Your task to perform on an android device: toggle sleep mode Image 0: 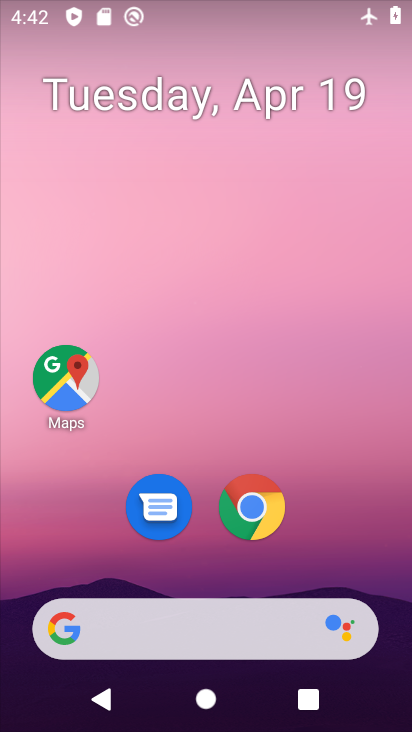
Step 0: drag from (330, 496) to (294, 120)
Your task to perform on an android device: toggle sleep mode Image 1: 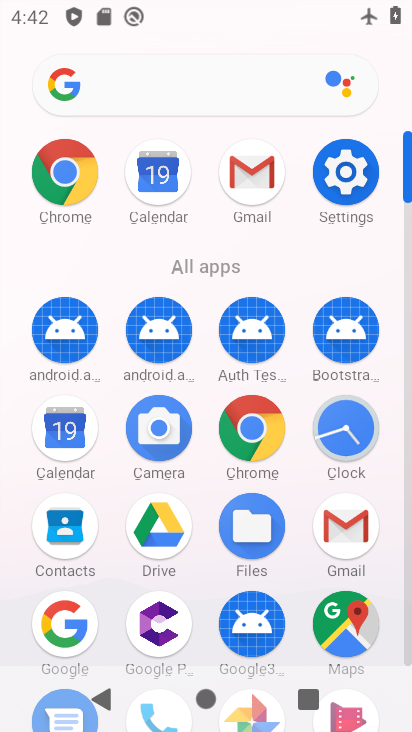
Step 1: click (339, 185)
Your task to perform on an android device: toggle sleep mode Image 2: 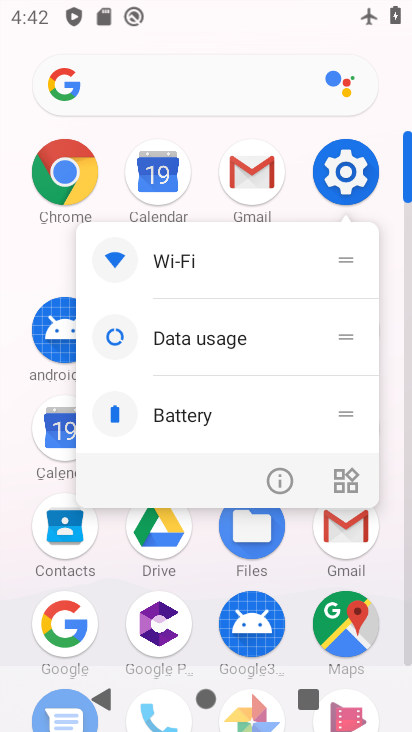
Step 2: click (342, 180)
Your task to perform on an android device: toggle sleep mode Image 3: 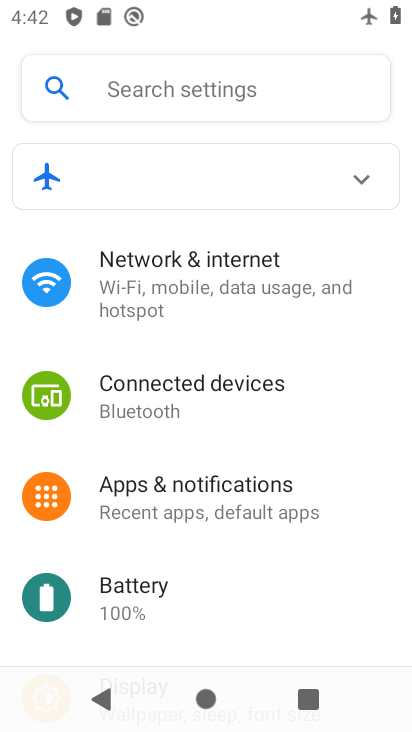
Step 3: drag from (227, 571) to (274, 161)
Your task to perform on an android device: toggle sleep mode Image 4: 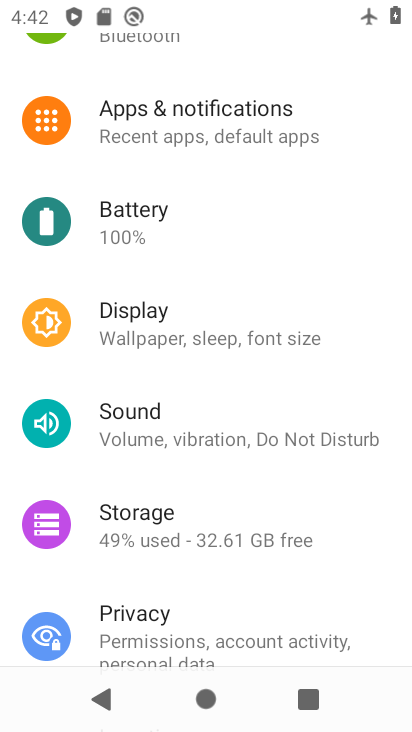
Step 4: click (164, 314)
Your task to perform on an android device: toggle sleep mode Image 5: 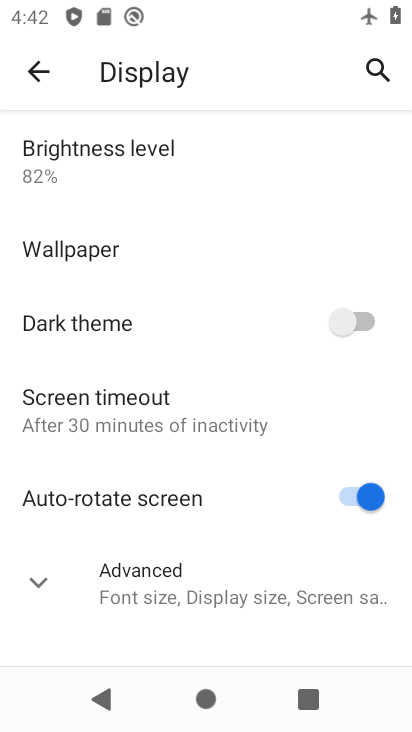
Step 5: click (218, 437)
Your task to perform on an android device: toggle sleep mode Image 6: 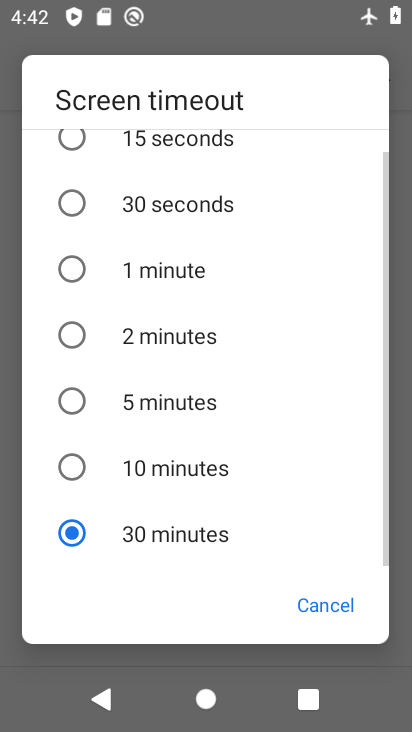
Step 6: drag from (202, 265) to (180, 581)
Your task to perform on an android device: toggle sleep mode Image 7: 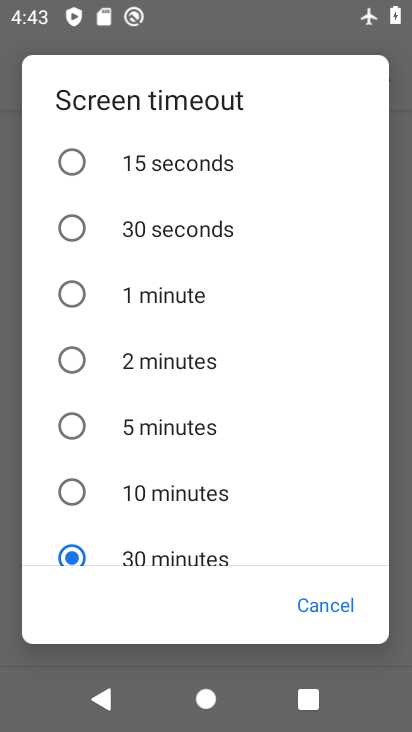
Step 7: click (174, 486)
Your task to perform on an android device: toggle sleep mode Image 8: 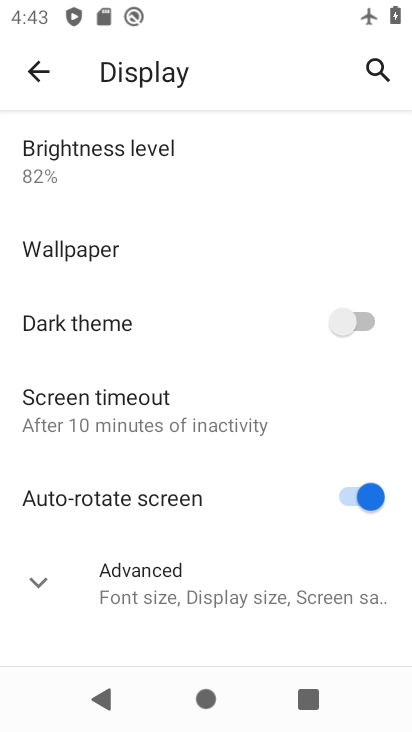
Step 8: task complete